Your task to perform on an android device: choose inbox layout in the gmail app Image 0: 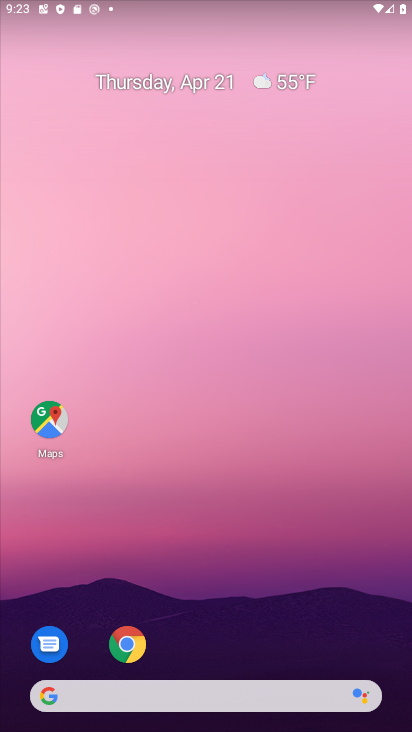
Step 0: drag from (254, 645) to (291, 159)
Your task to perform on an android device: choose inbox layout in the gmail app Image 1: 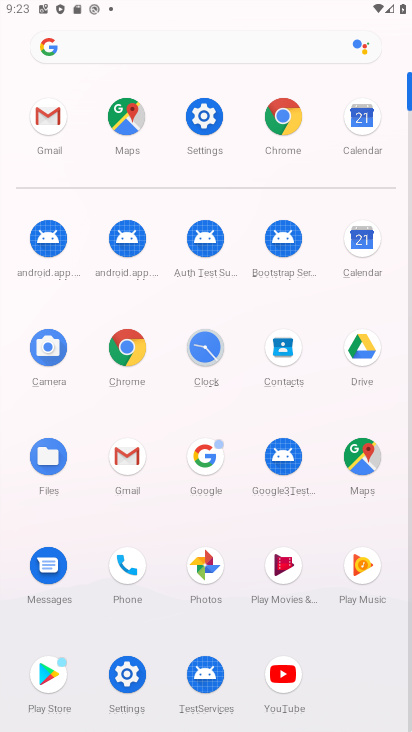
Step 1: click (54, 121)
Your task to perform on an android device: choose inbox layout in the gmail app Image 2: 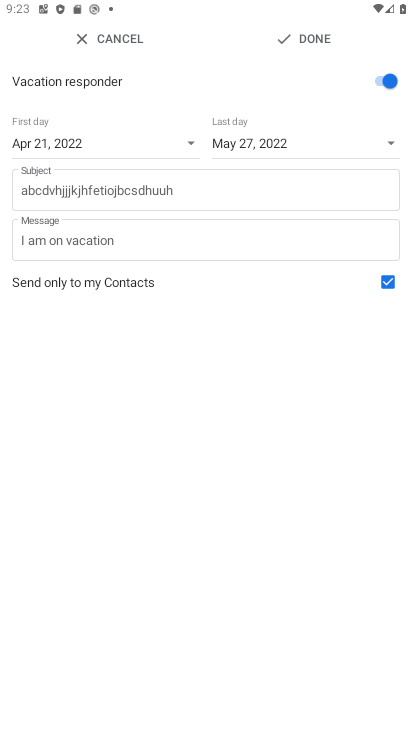
Step 2: click (77, 46)
Your task to perform on an android device: choose inbox layout in the gmail app Image 3: 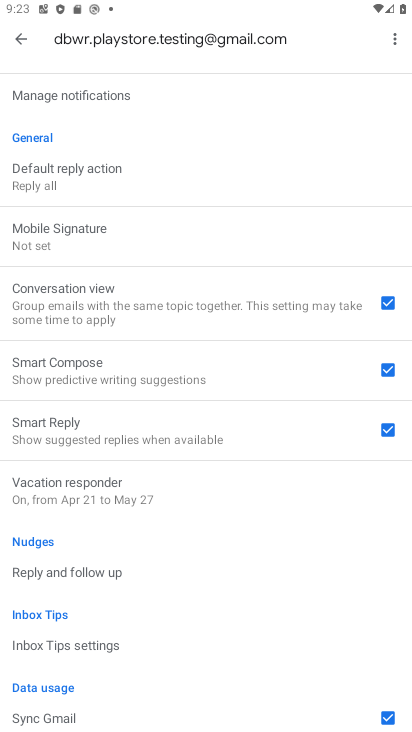
Step 3: drag from (109, 135) to (167, 620)
Your task to perform on an android device: choose inbox layout in the gmail app Image 4: 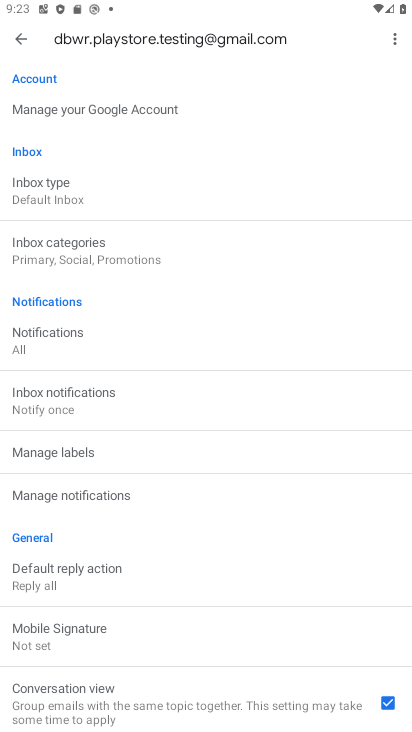
Step 4: drag from (203, 238) to (181, 587)
Your task to perform on an android device: choose inbox layout in the gmail app Image 5: 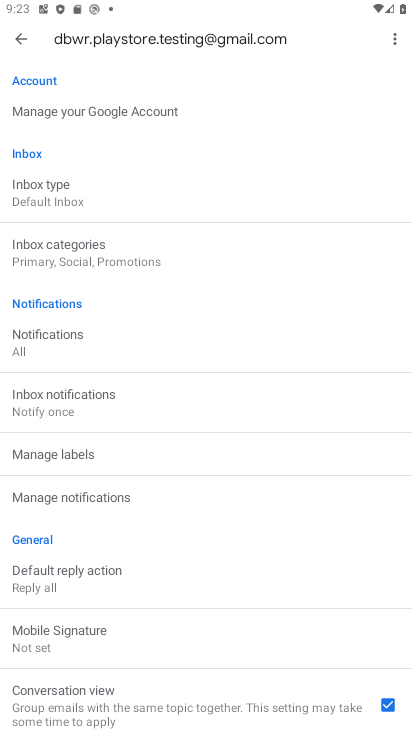
Step 5: click (64, 196)
Your task to perform on an android device: choose inbox layout in the gmail app Image 6: 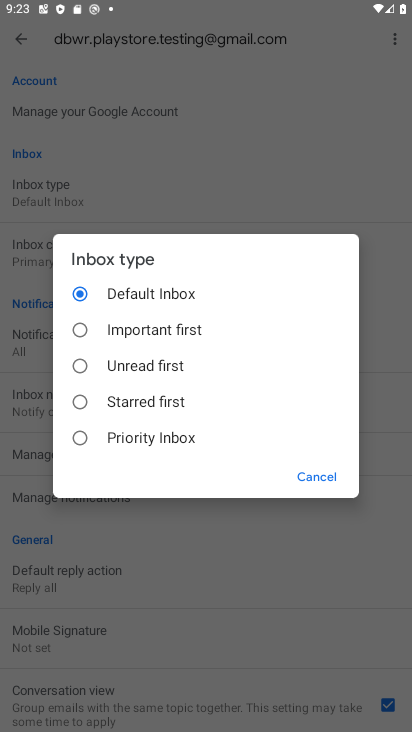
Step 6: task complete